Your task to perform on an android device: What's the weather going to be tomorrow? Image 0: 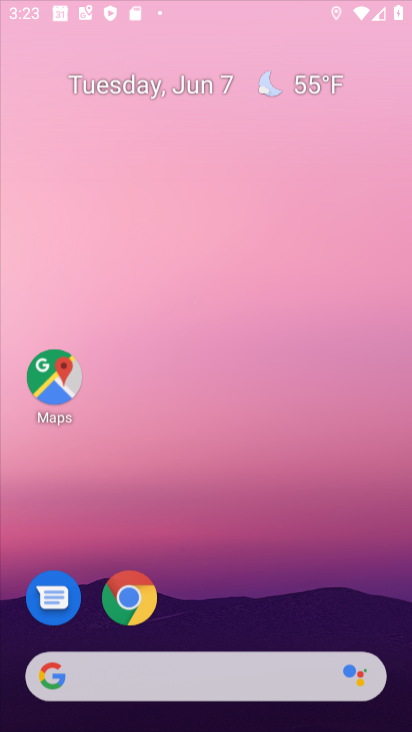
Step 0: drag from (204, 527) to (188, 68)
Your task to perform on an android device: What's the weather going to be tomorrow? Image 1: 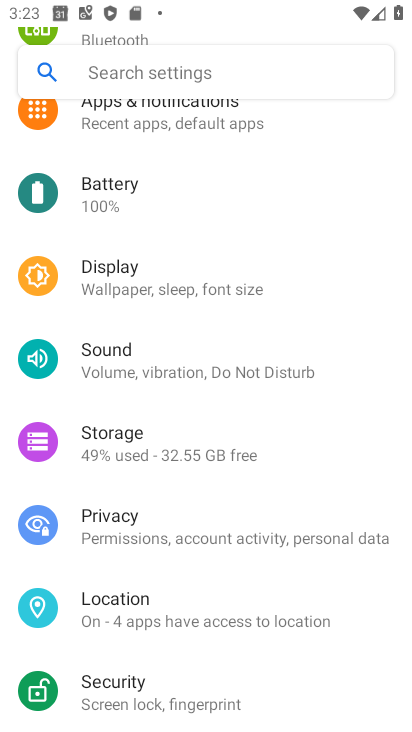
Step 1: press back button
Your task to perform on an android device: What's the weather going to be tomorrow? Image 2: 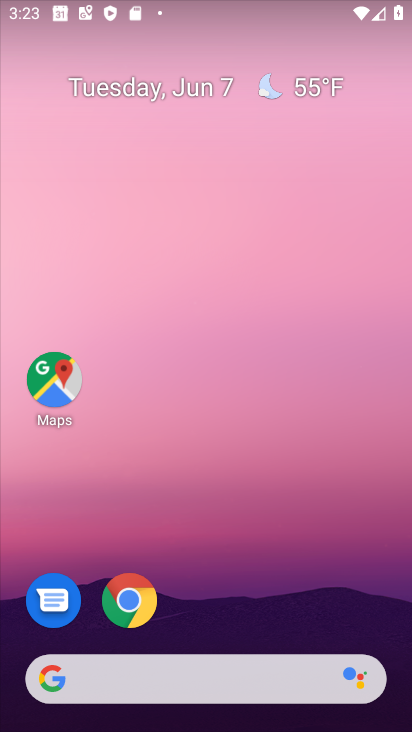
Step 2: drag from (201, 622) to (240, 164)
Your task to perform on an android device: What's the weather going to be tomorrow? Image 3: 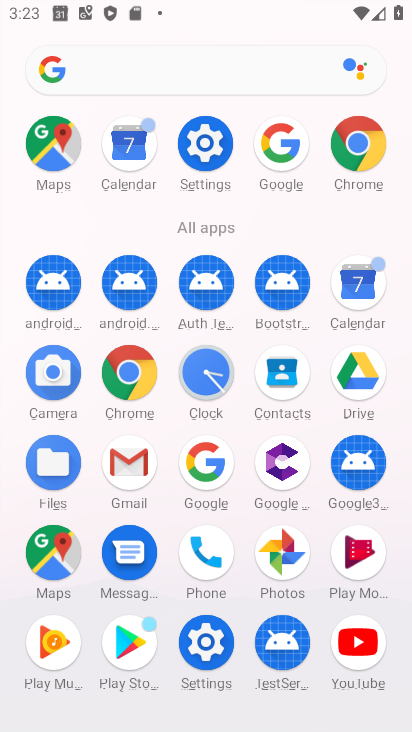
Step 3: click (286, 382)
Your task to perform on an android device: What's the weather going to be tomorrow? Image 4: 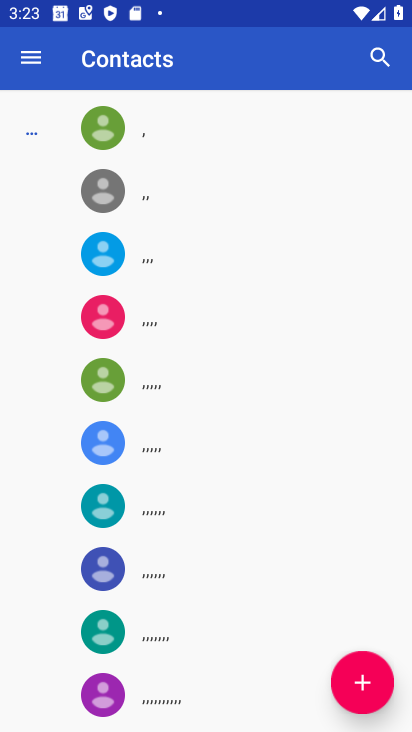
Step 4: click (341, 689)
Your task to perform on an android device: What's the weather going to be tomorrow? Image 5: 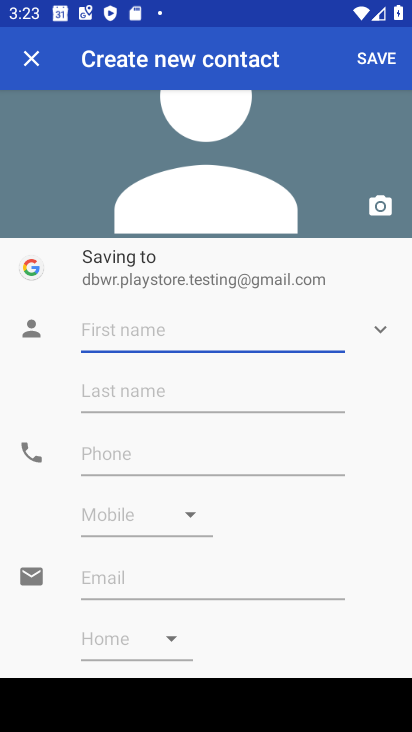
Step 5: click (226, 333)
Your task to perform on an android device: What's the weather going to be tomorrow? Image 6: 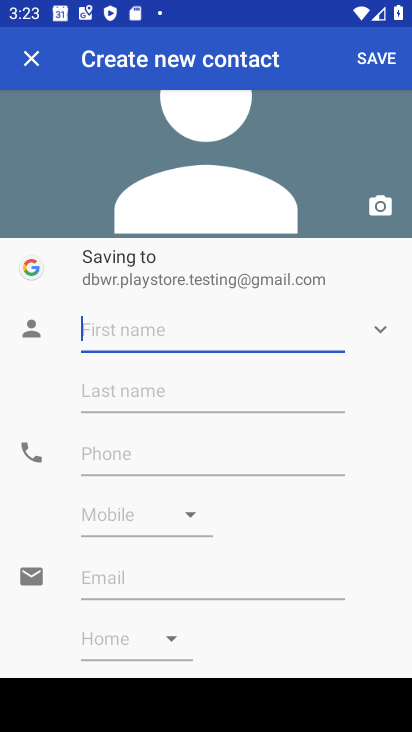
Step 6: type "narsimha"
Your task to perform on an android device: What's the weather going to be tomorrow? Image 7: 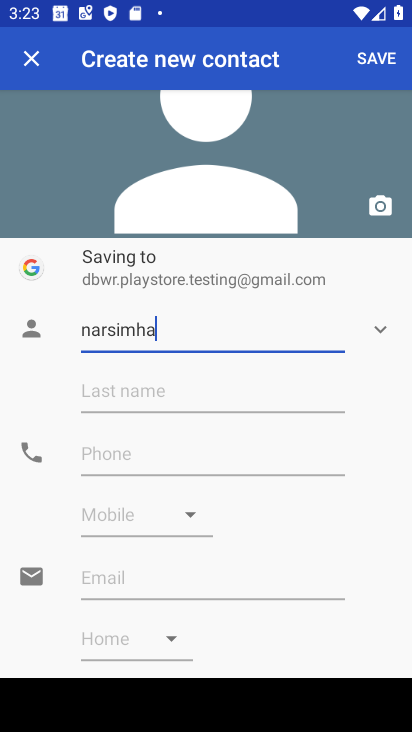
Step 7: click (115, 392)
Your task to perform on an android device: What's the weather going to be tomorrow? Image 8: 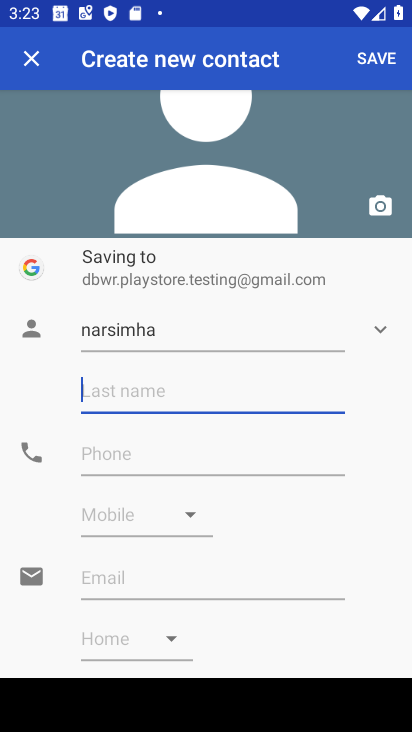
Step 8: type "mishra"
Your task to perform on an android device: What's the weather going to be tomorrow? Image 9: 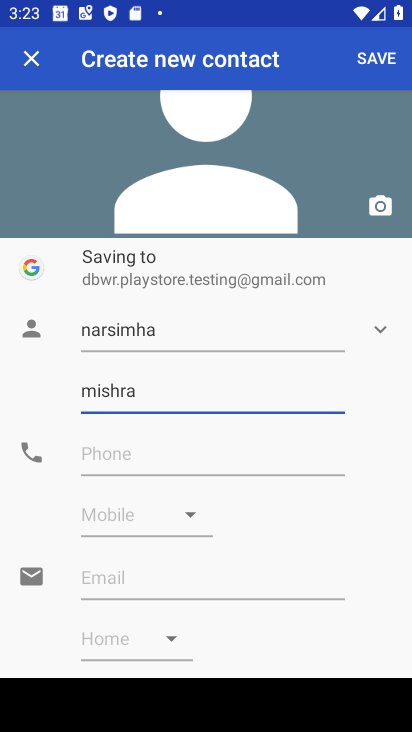
Step 9: click (175, 457)
Your task to perform on an android device: What's the weather going to be tomorrow? Image 10: 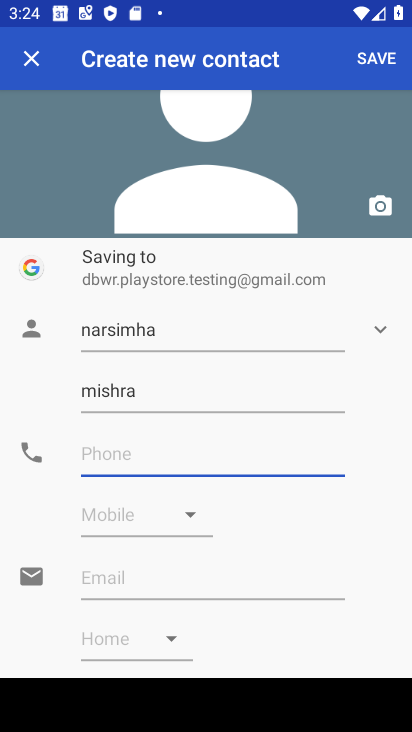
Step 10: type "9293949597"
Your task to perform on an android device: What's the weather going to be tomorrow? Image 11: 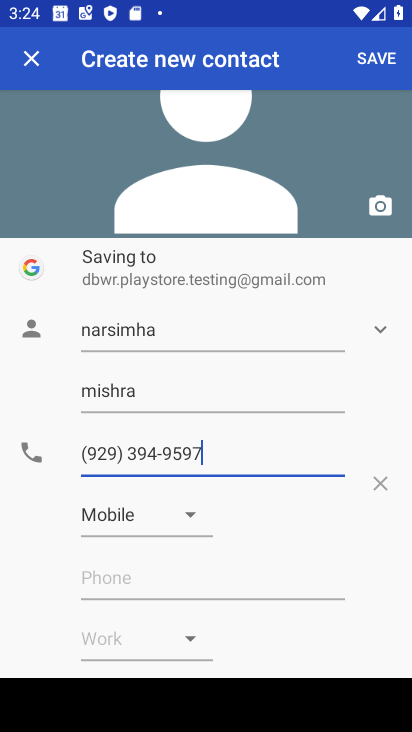
Step 11: task complete